Your task to perform on an android device: Open calendar and show me the third week of next month Image 0: 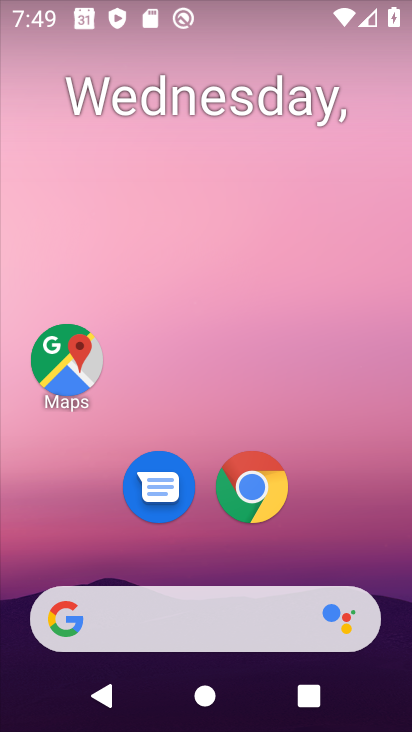
Step 0: drag from (345, 585) to (320, 25)
Your task to perform on an android device: Open calendar and show me the third week of next month Image 1: 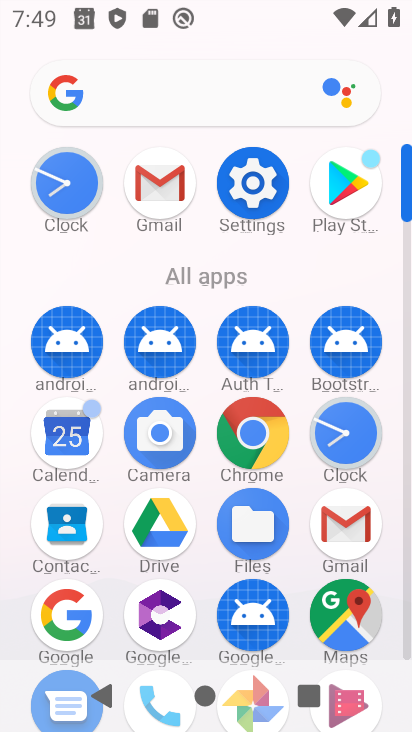
Step 1: click (54, 436)
Your task to perform on an android device: Open calendar and show me the third week of next month Image 2: 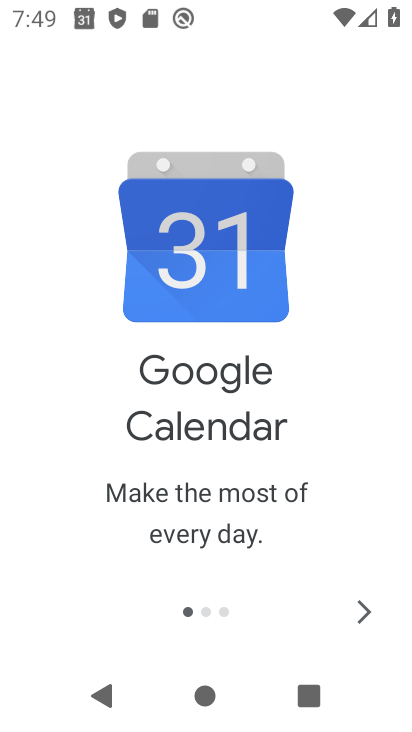
Step 2: click (372, 617)
Your task to perform on an android device: Open calendar and show me the third week of next month Image 3: 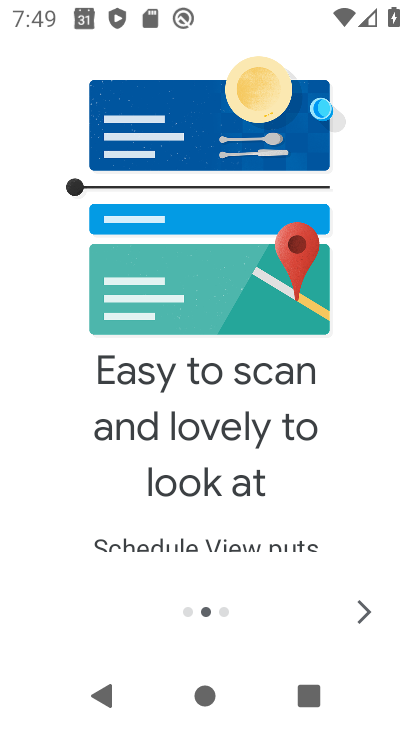
Step 3: click (372, 617)
Your task to perform on an android device: Open calendar and show me the third week of next month Image 4: 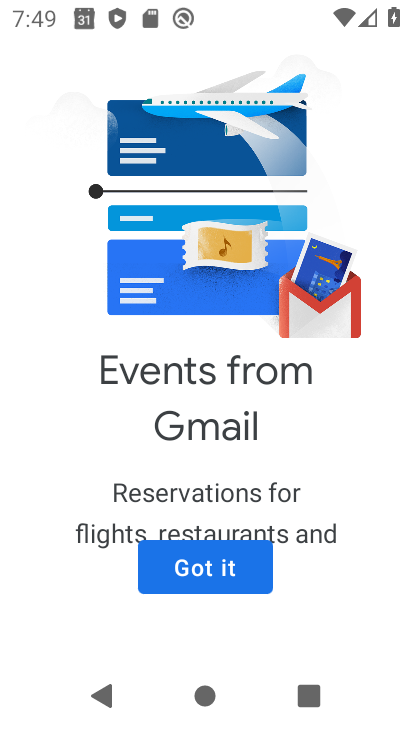
Step 4: click (237, 574)
Your task to perform on an android device: Open calendar and show me the third week of next month Image 5: 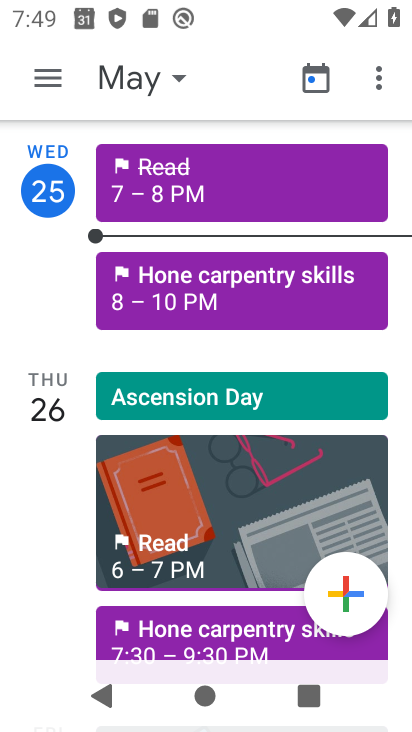
Step 5: click (180, 79)
Your task to perform on an android device: Open calendar and show me the third week of next month Image 6: 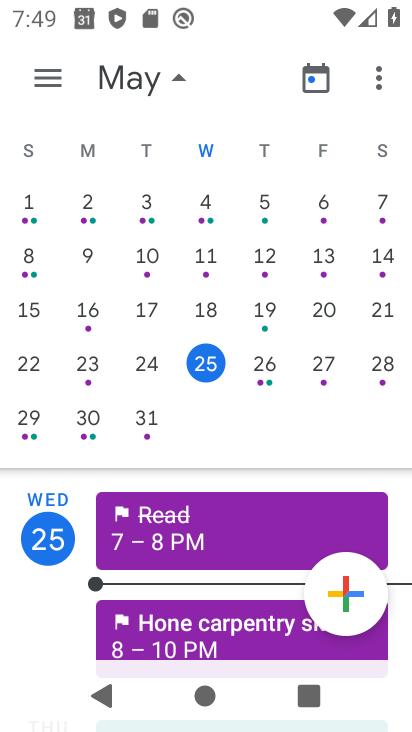
Step 6: drag from (334, 313) to (2, 337)
Your task to perform on an android device: Open calendar and show me the third week of next month Image 7: 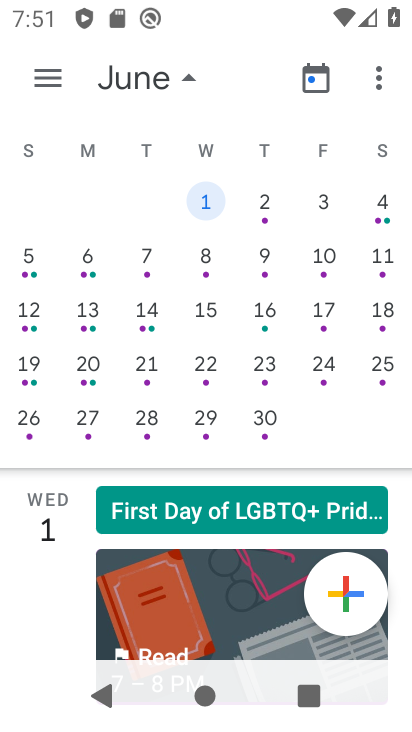
Step 7: click (53, 82)
Your task to perform on an android device: Open calendar and show me the third week of next month Image 8: 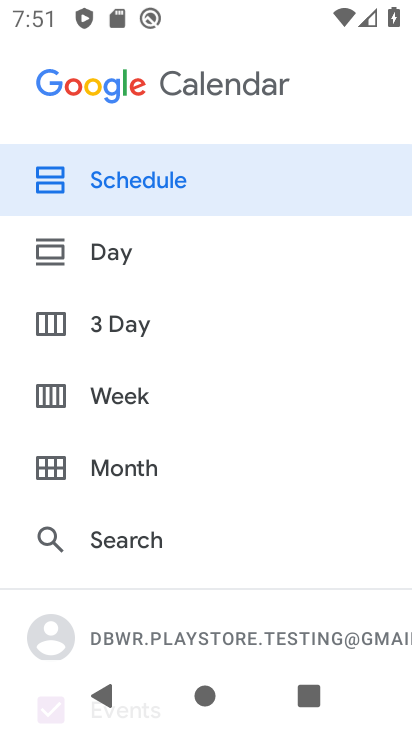
Step 8: click (105, 400)
Your task to perform on an android device: Open calendar and show me the third week of next month Image 9: 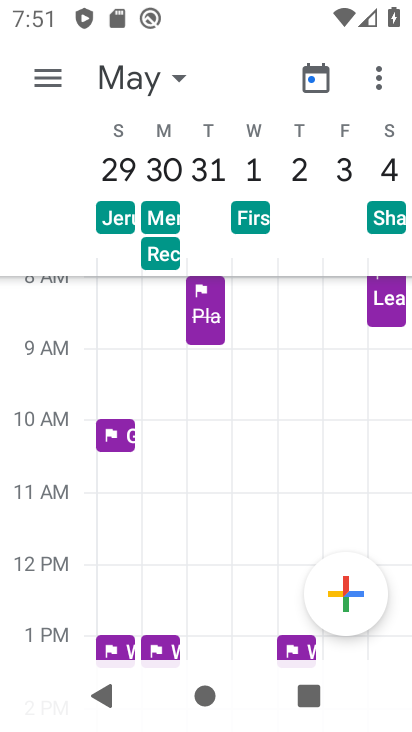
Step 9: task complete